Your task to perform on an android device: Open location settings Image 0: 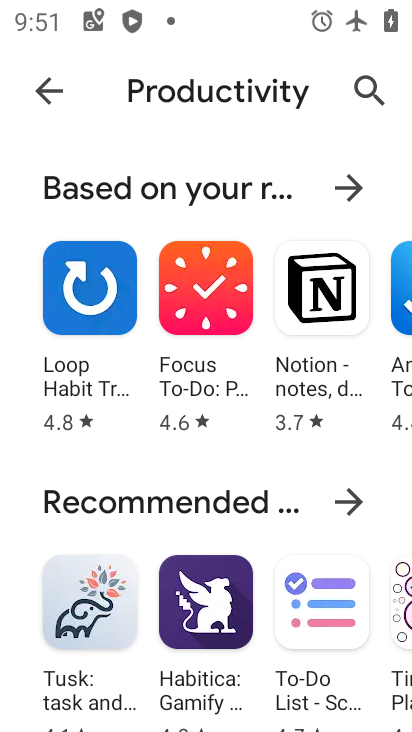
Step 0: press home button
Your task to perform on an android device: Open location settings Image 1: 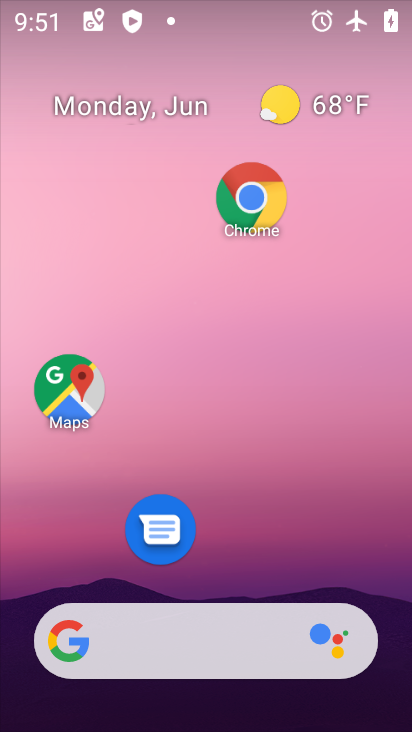
Step 1: drag from (208, 567) to (212, 143)
Your task to perform on an android device: Open location settings Image 2: 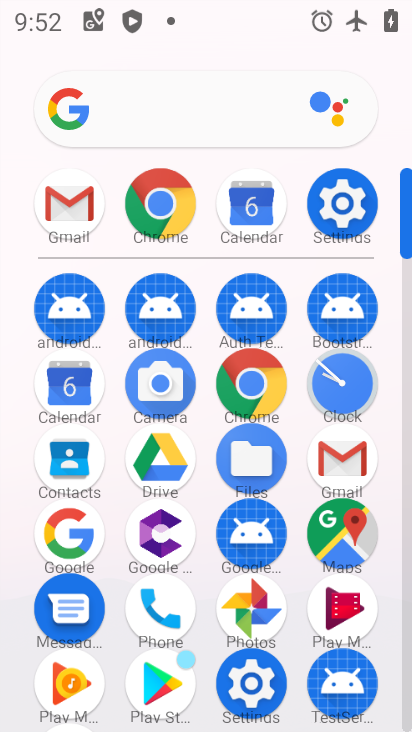
Step 2: click (315, 190)
Your task to perform on an android device: Open location settings Image 3: 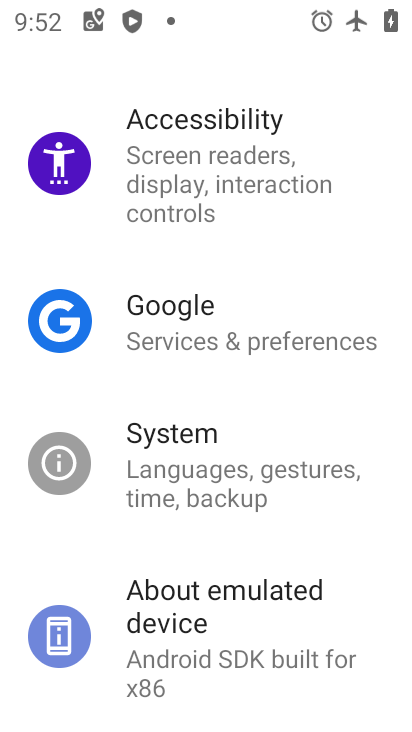
Step 3: drag from (239, 573) to (264, 143)
Your task to perform on an android device: Open location settings Image 4: 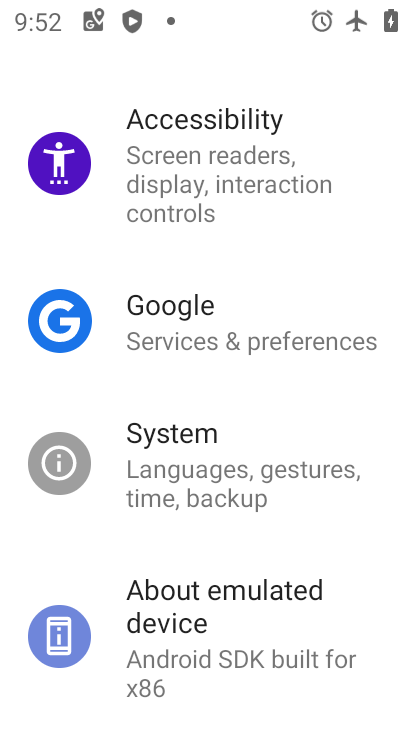
Step 4: drag from (199, 520) to (203, 184)
Your task to perform on an android device: Open location settings Image 5: 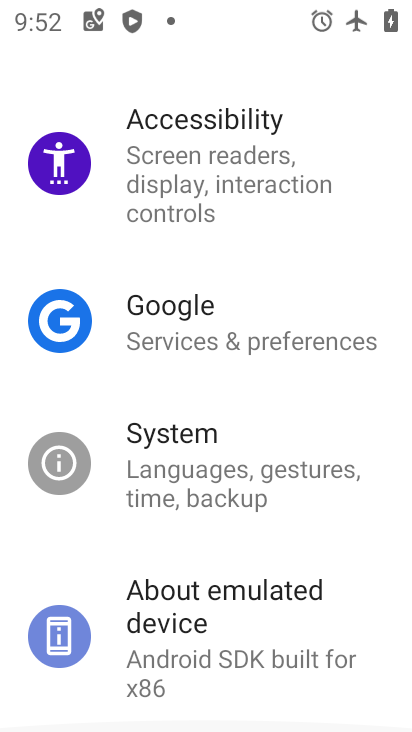
Step 5: drag from (203, 184) to (204, 493)
Your task to perform on an android device: Open location settings Image 6: 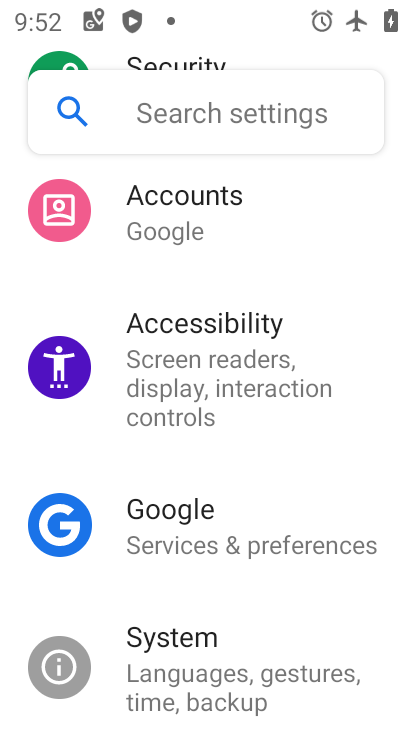
Step 6: drag from (198, 200) to (200, 502)
Your task to perform on an android device: Open location settings Image 7: 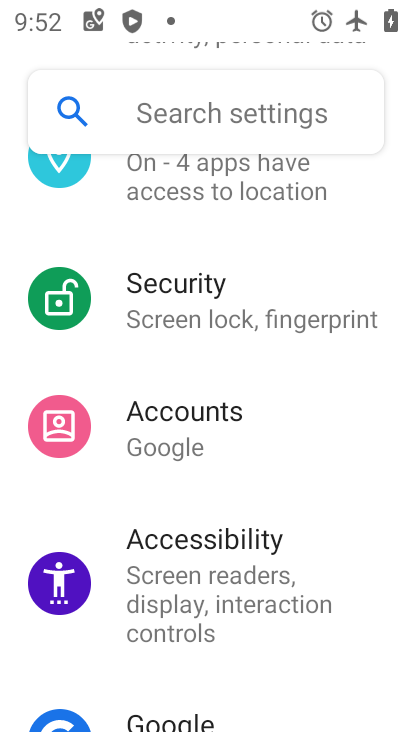
Step 7: drag from (185, 201) to (185, 480)
Your task to perform on an android device: Open location settings Image 8: 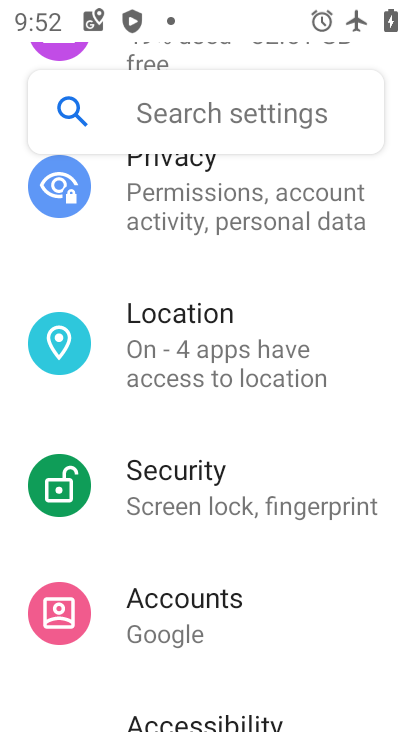
Step 8: drag from (199, 262) to (209, 561)
Your task to perform on an android device: Open location settings Image 9: 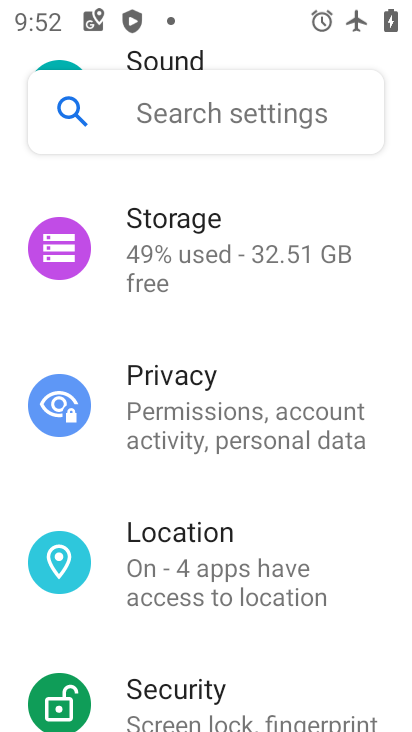
Step 9: click (200, 556)
Your task to perform on an android device: Open location settings Image 10: 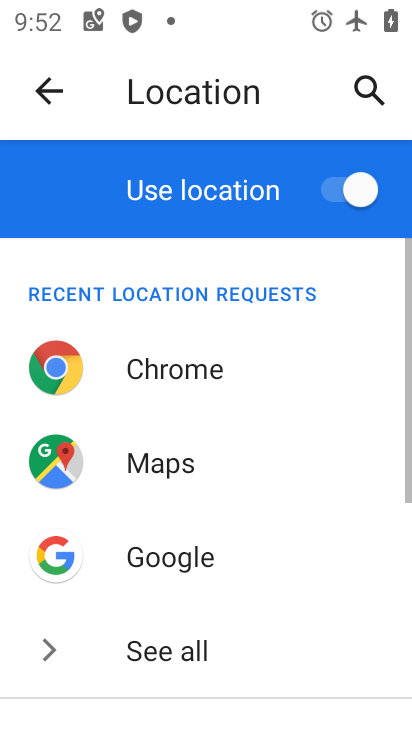
Step 10: task complete